Your task to perform on an android device: turn off javascript in the chrome app Image 0: 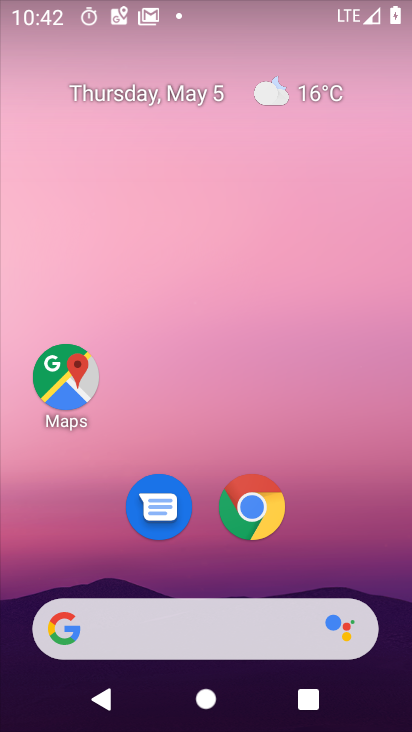
Step 0: drag from (196, 580) to (233, 176)
Your task to perform on an android device: turn off javascript in the chrome app Image 1: 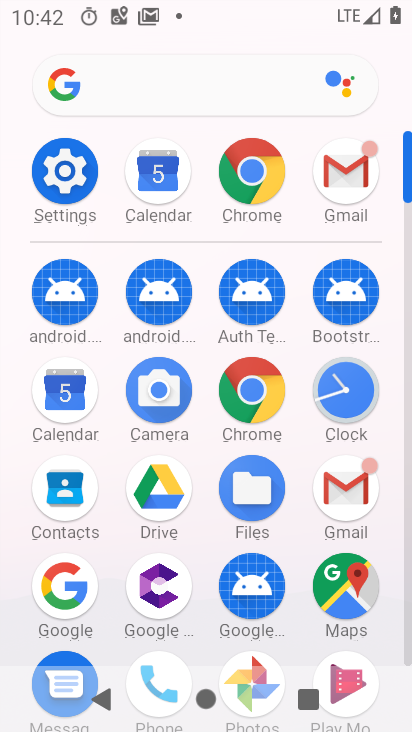
Step 1: click (244, 174)
Your task to perform on an android device: turn off javascript in the chrome app Image 2: 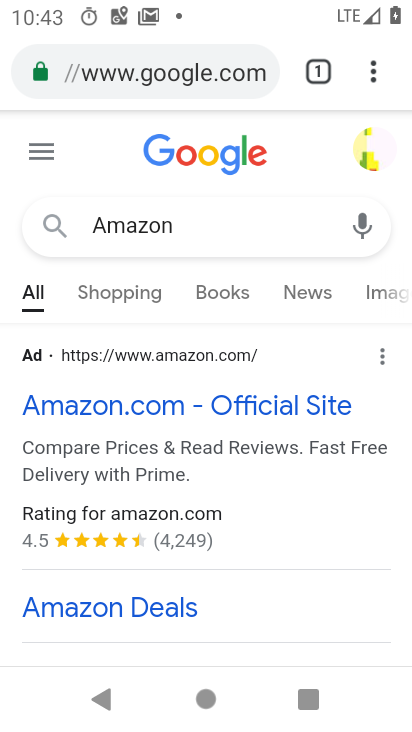
Step 2: click (374, 73)
Your task to perform on an android device: turn off javascript in the chrome app Image 3: 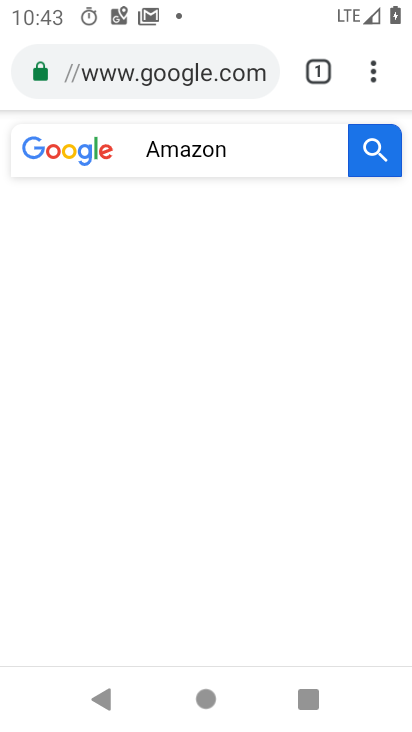
Step 3: click (374, 71)
Your task to perform on an android device: turn off javascript in the chrome app Image 4: 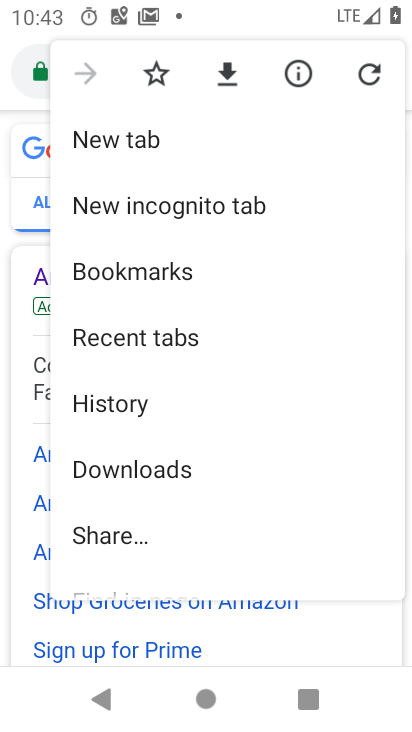
Step 4: drag from (132, 533) to (149, 247)
Your task to perform on an android device: turn off javascript in the chrome app Image 5: 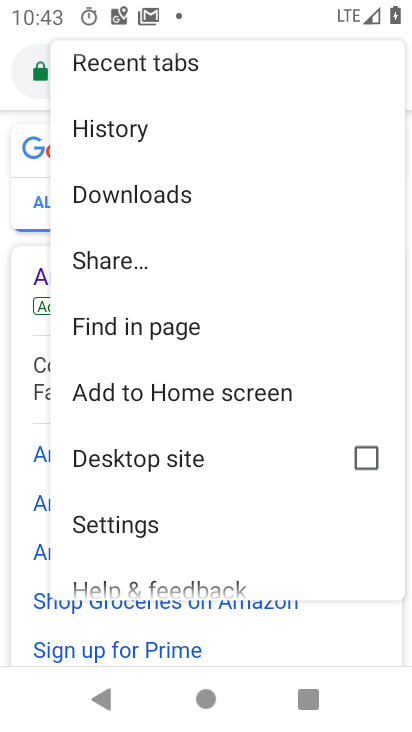
Step 5: click (108, 526)
Your task to perform on an android device: turn off javascript in the chrome app Image 6: 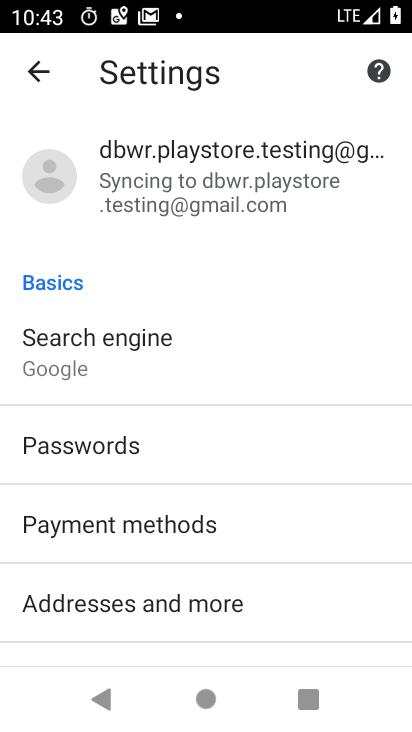
Step 6: drag from (84, 563) to (117, 233)
Your task to perform on an android device: turn off javascript in the chrome app Image 7: 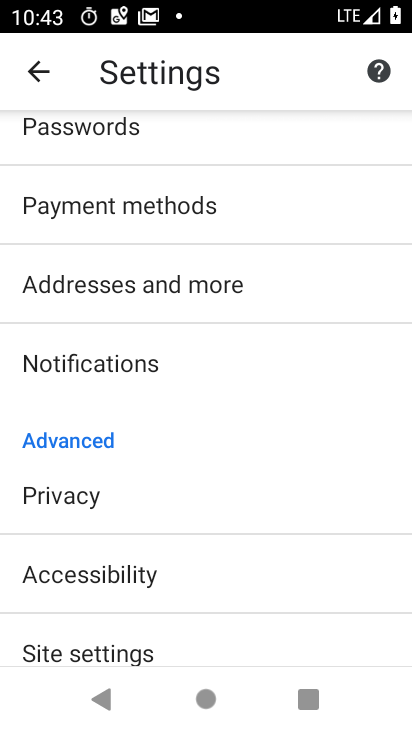
Step 7: drag from (93, 613) to (126, 360)
Your task to perform on an android device: turn off javascript in the chrome app Image 8: 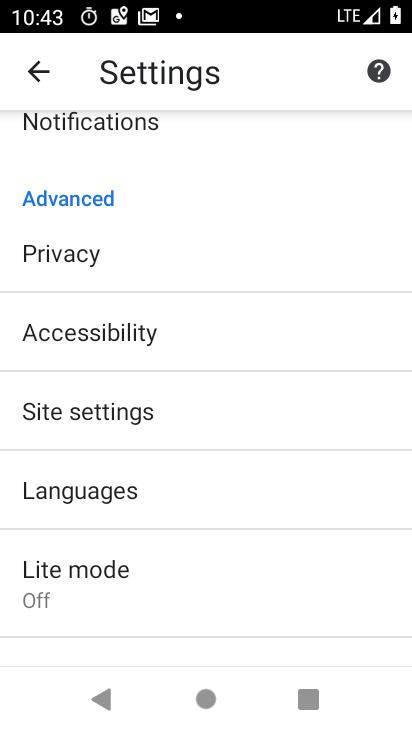
Step 8: click (93, 417)
Your task to perform on an android device: turn off javascript in the chrome app Image 9: 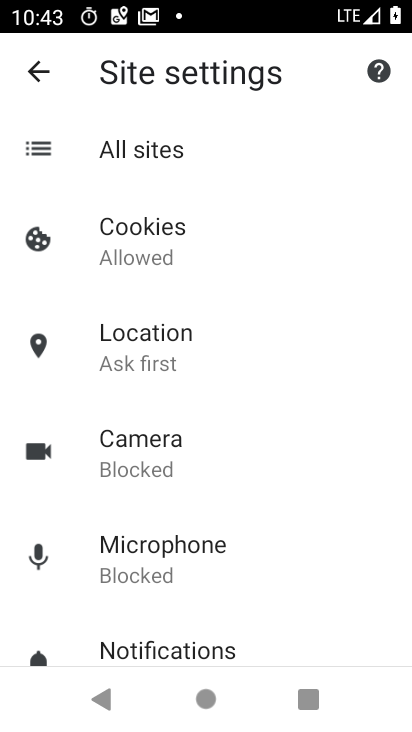
Step 9: drag from (176, 616) to (233, 261)
Your task to perform on an android device: turn off javascript in the chrome app Image 10: 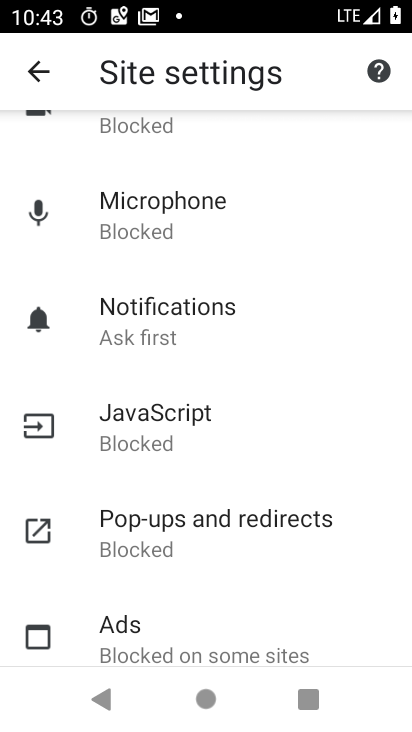
Step 10: click (157, 423)
Your task to perform on an android device: turn off javascript in the chrome app Image 11: 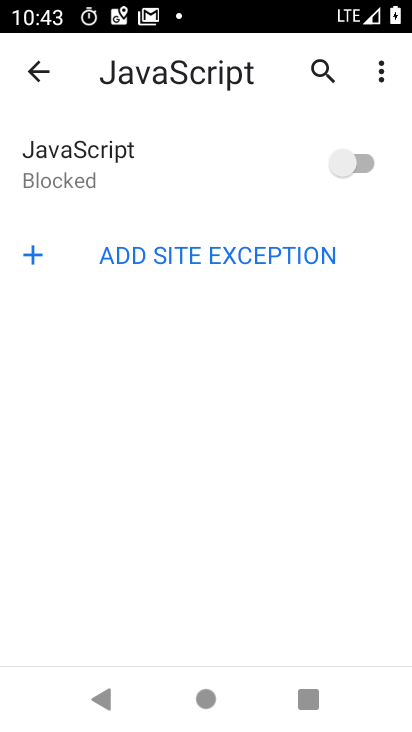
Step 11: task complete